Your task to perform on an android device: Go to Yahoo.com Image 0: 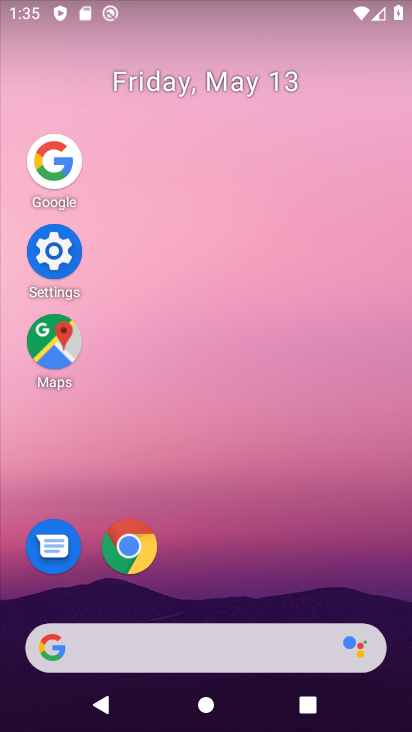
Step 0: click (133, 552)
Your task to perform on an android device: Go to Yahoo.com Image 1: 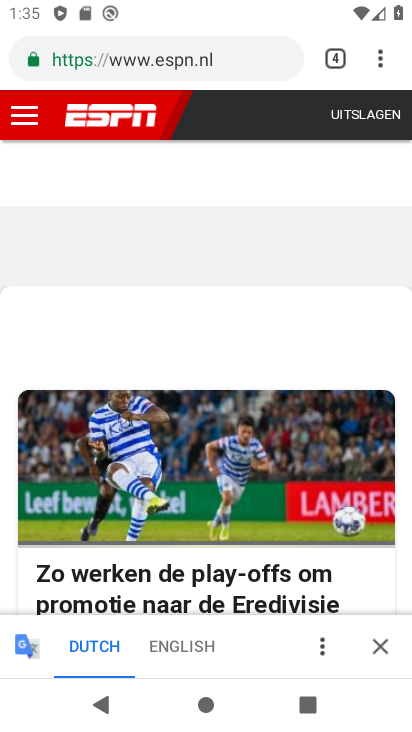
Step 1: click (337, 54)
Your task to perform on an android device: Go to Yahoo.com Image 2: 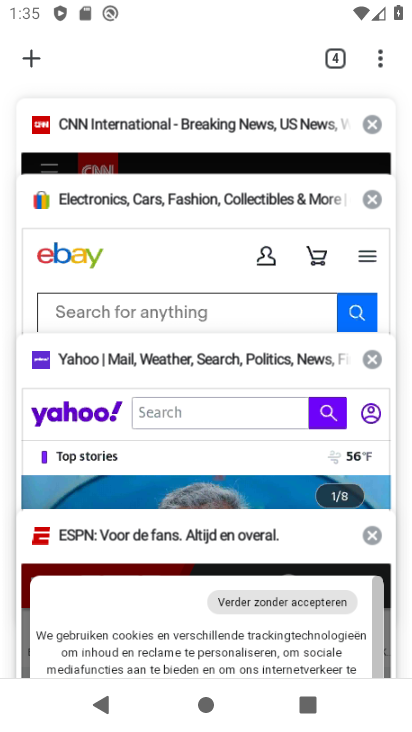
Step 2: click (102, 411)
Your task to perform on an android device: Go to Yahoo.com Image 3: 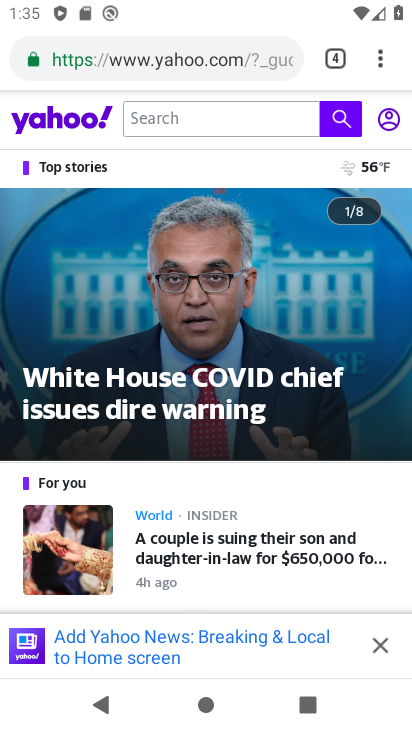
Step 3: task complete